Your task to perform on an android device: Open maps Image 0: 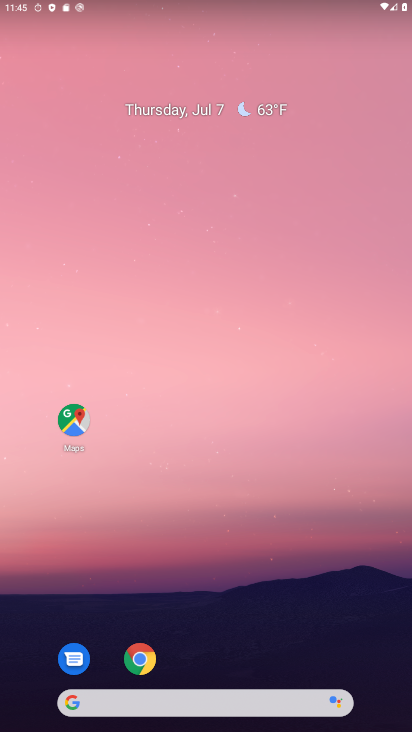
Step 0: click (72, 424)
Your task to perform on an android device: Open maps Image 1: 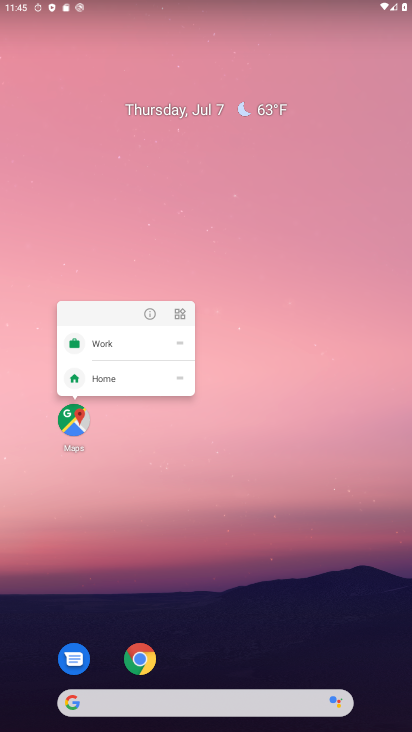
Step 1: click (76, 427)
Your task to perform on an android device: Open maps Image 2: 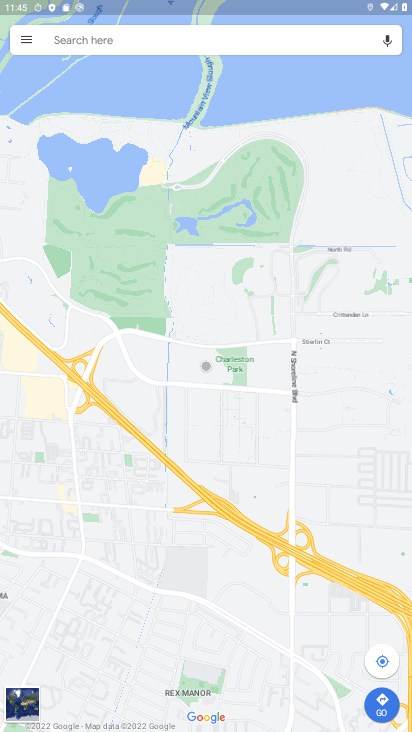
Step 2: task complete